Your task to perform on an android device: turn off sleep mode Image 0: 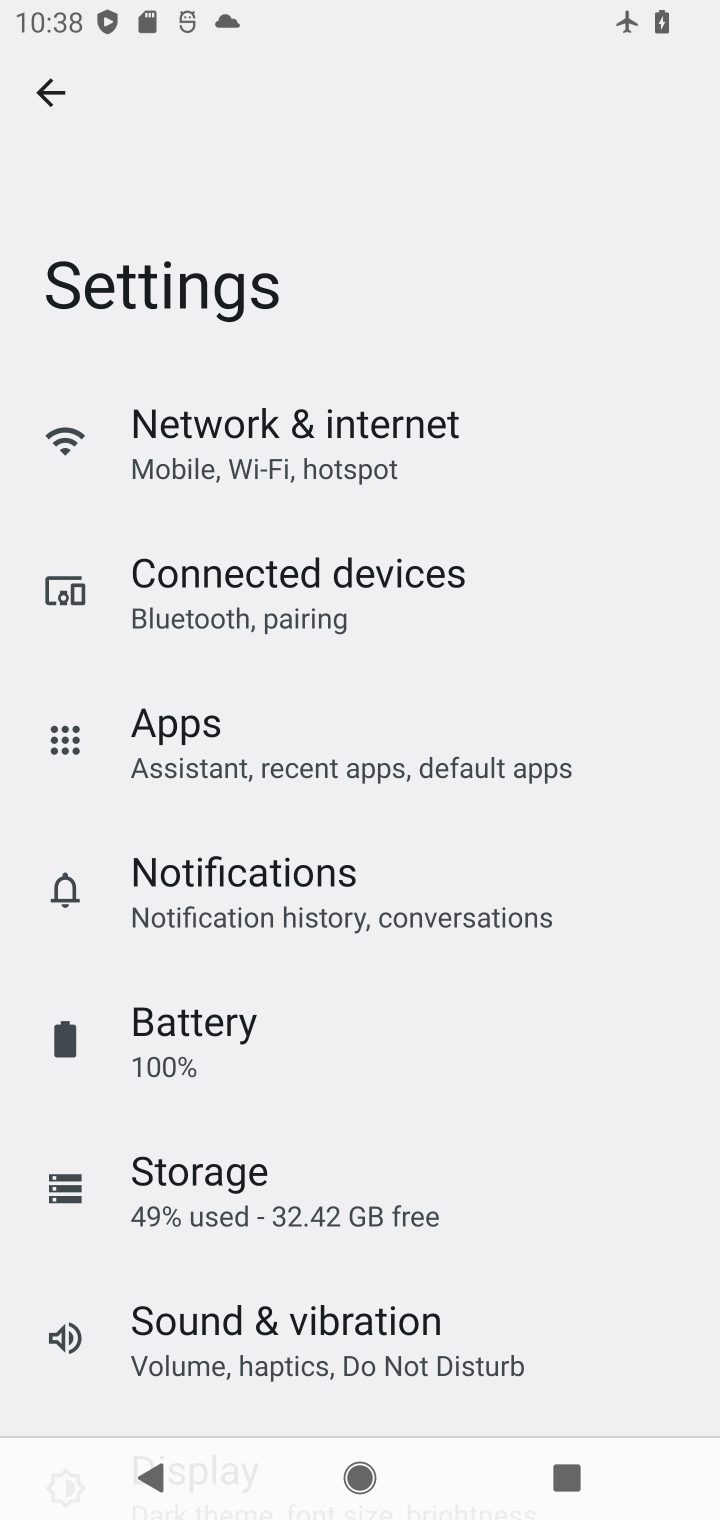
Step 0: task impossible